Your task to perform on an android device: Open Google Maps and go to "Timeline" Image 0: 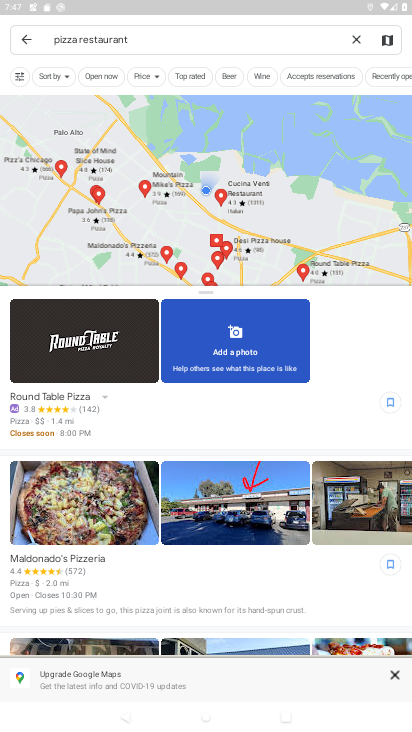
Step 0: click (352, 38)
Your task to perform on an android device: Open Google Maps and go to "Timeline" Image 1: 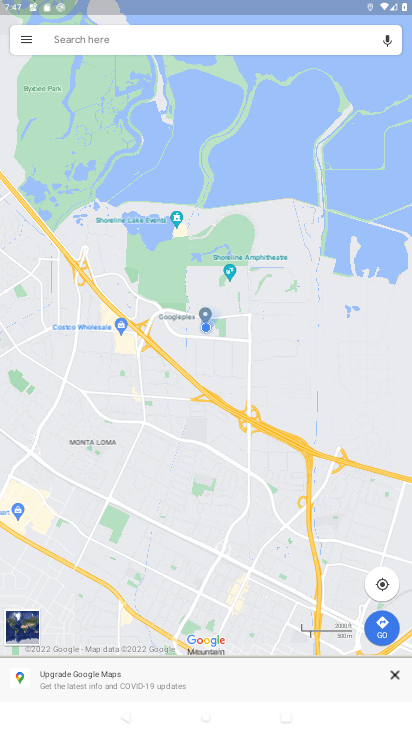
Step 1: click (29, 36)
Your task to perform on an android device: Open Google Maps and go to "Timeline" Image 2: 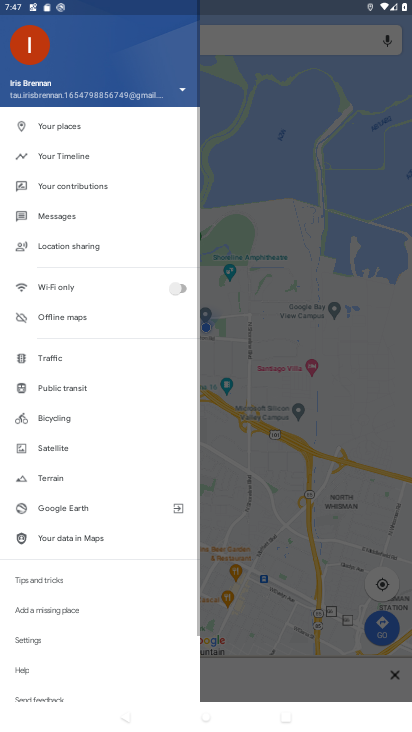
Step 2: click (41, 151)
Your task to perform on an android device: Open Google Maps and go to "Timeline" Image 3: 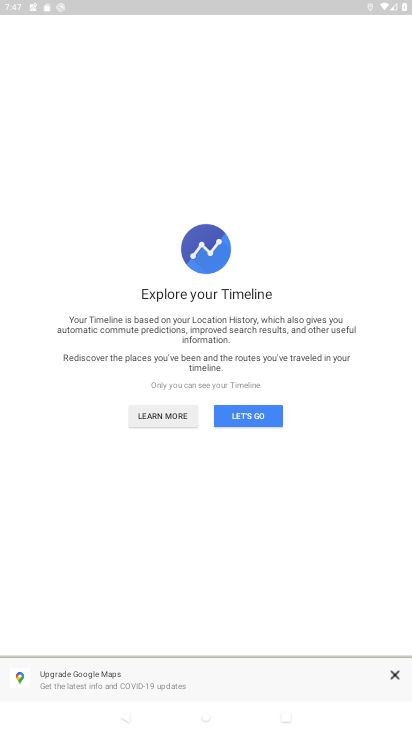
Step 3: click (218, 413)
Your task to perform on an android device: Open Google Maps and go to "Timeline" Image 4: 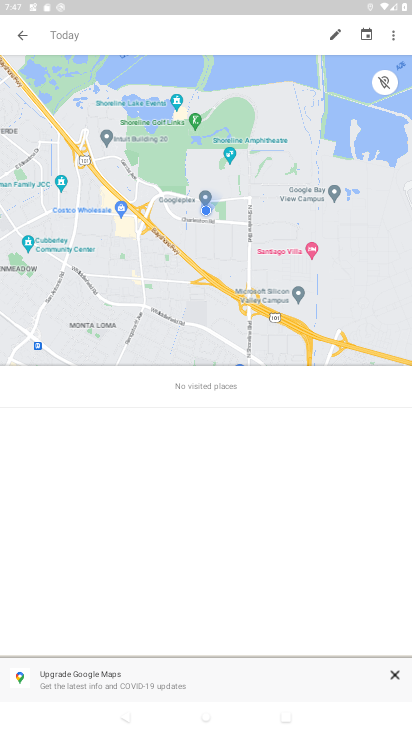
Step 4: task complete